Your task to perform on an android device: open sync settings in chrome Image 0: 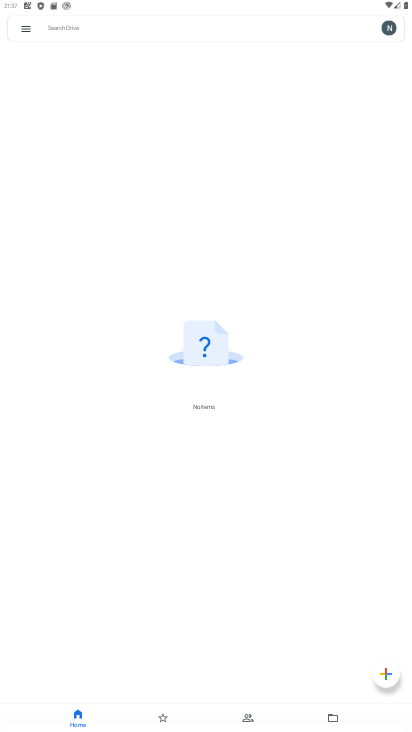
Step 0: press home button
Your task to perform on an android device: open sync settings in chrome Image 1: 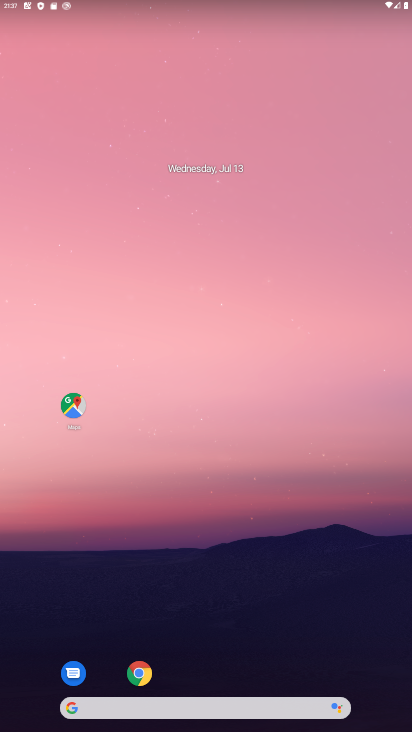
Step 1: click (142, 662)
Your task to perform on an android device: open sync settings in chrome Image 2: 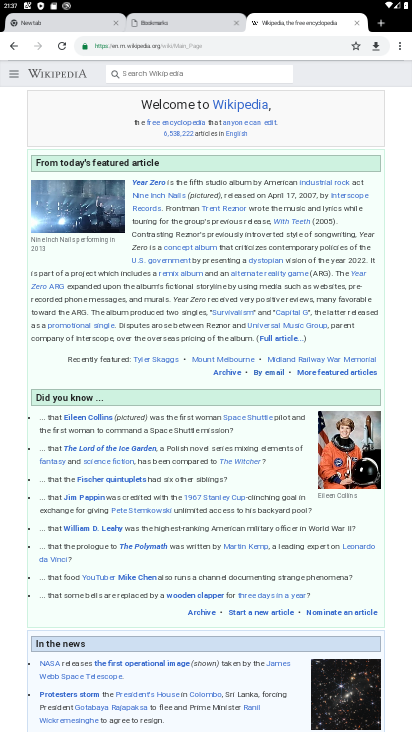
Step 2: click (395, 42)
Your task to perform on an android device: open sync settings in chrome Image 3: 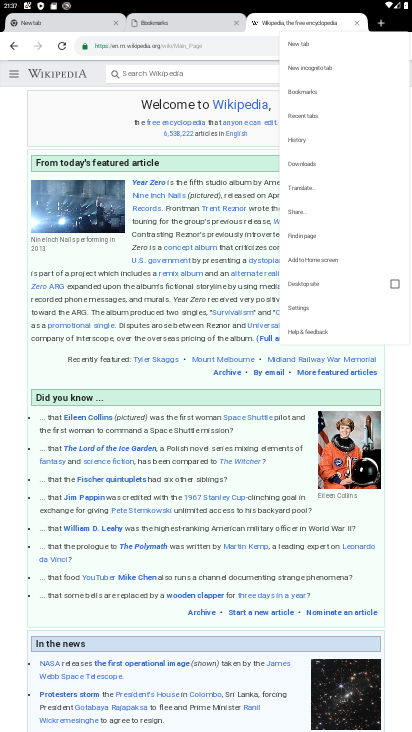
Step 3: click (312, 309)
Your task to perform on an android device: open sync settings in chrome Image 4: 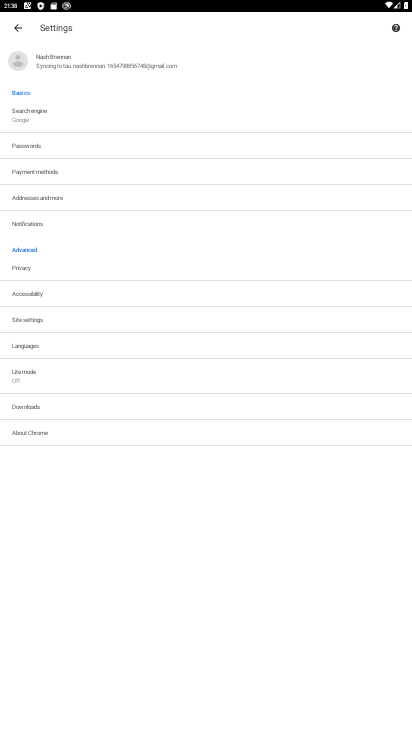
Step 4: click (84, 66)
Your task to perform on an android device: open sync settings in chrome Image 5: 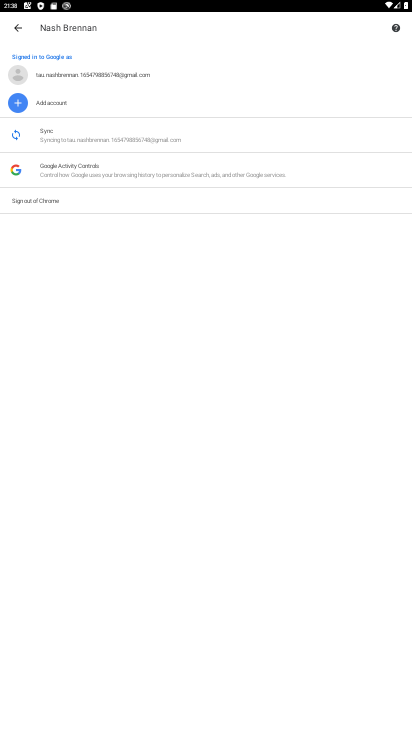
Step 5: click (68, 131)
Your task to perform on an android device: open sync settings in chrome Image 6: 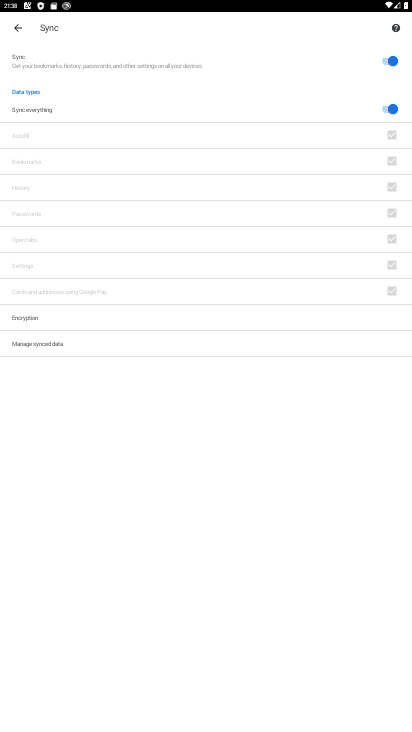
Step 6: task complete